Your task to perform on an android device: Open CNN.com Image 0: 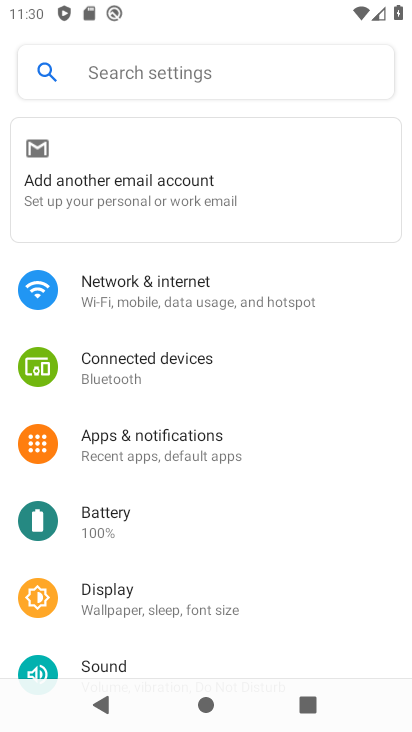
Step 0: press home button
Your task to perform on an android device: Open CNN.com Image 1: 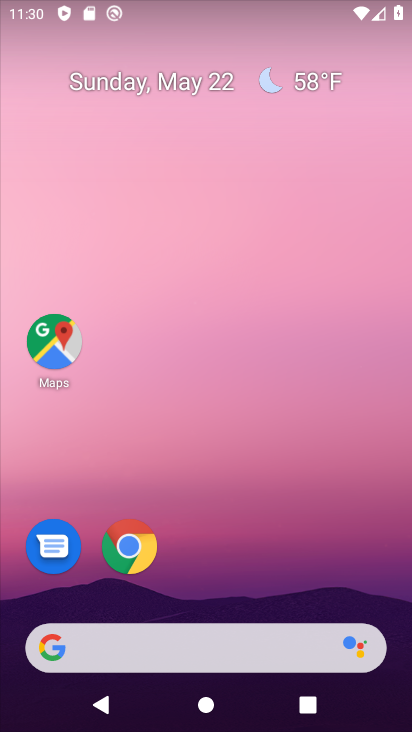
Step 1: click (140, 548)
Your task to perform on an android device: Open CNN.com Image 2: 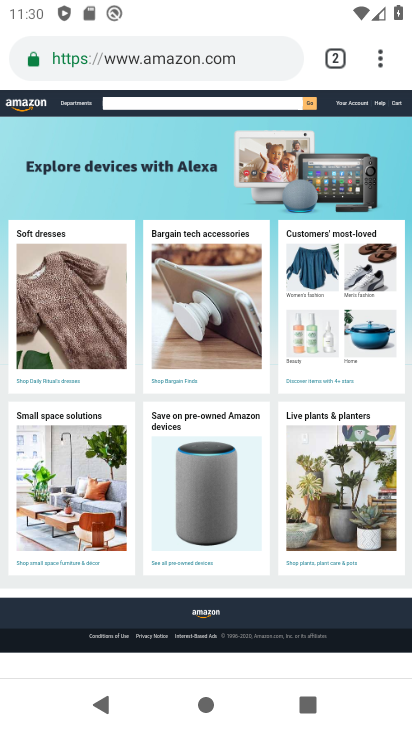
Step 2: click (258, 54)
Your task to perform on an android device: Open CNN.com Image 3: 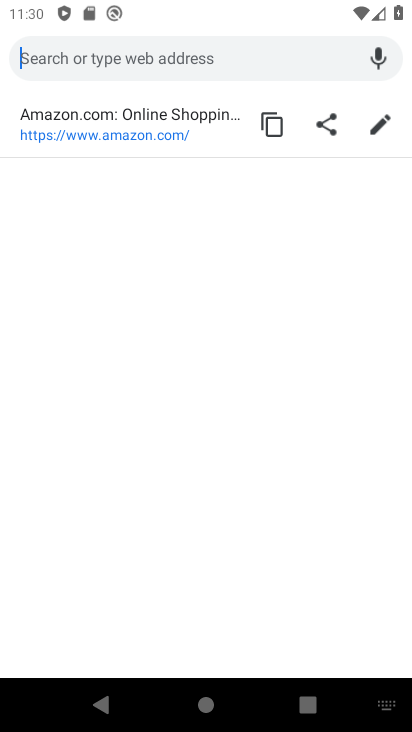
Step 3: type "cnn.com"
Your task to perform on an android device: Open CNN.com Image 4: 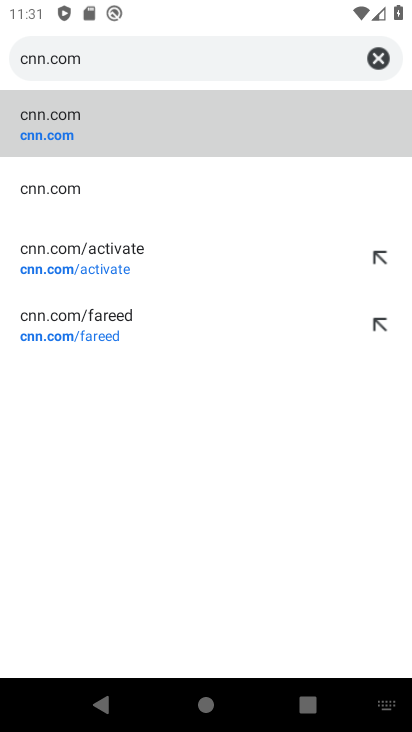
Step 4: click (49, 123)
Your task to perform on an android device: Open CNN.com Image 5: 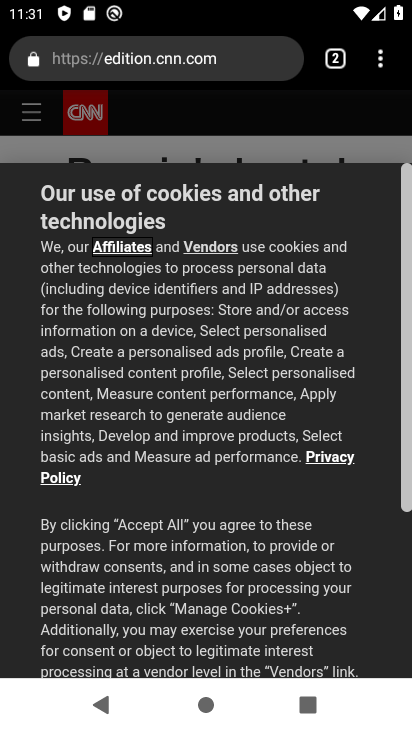
Step 5: task complete